Your task to perform on an android device: turn on improve location accuracy Image 0: 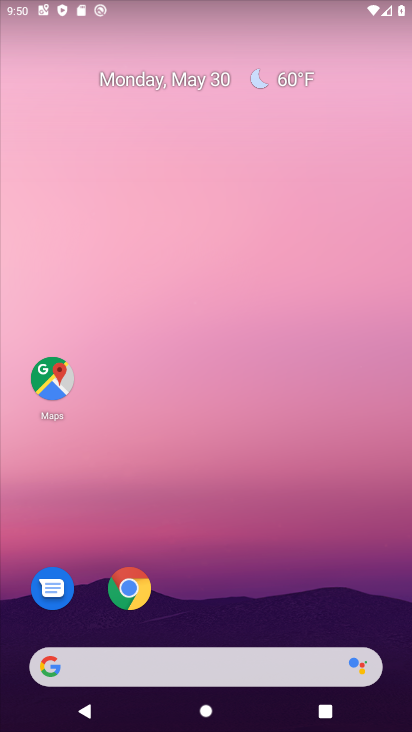
Step 0: drag from (198, 604) to (254, 239)
Your task to perform on an android device: turn on improve location accuracy Image 1: 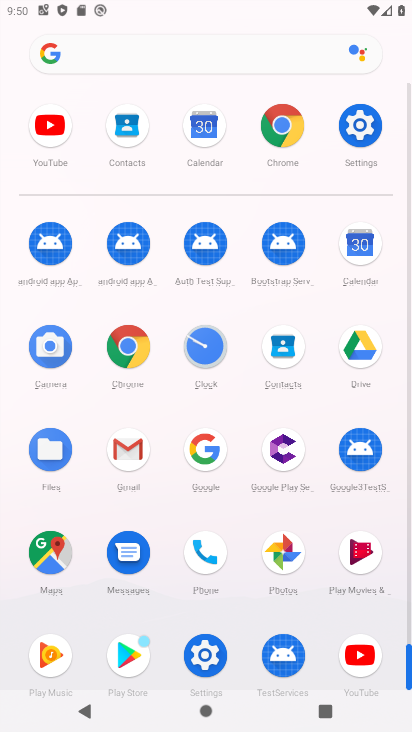
Step 1: click (360, 142)
Your task to perform on an android device: turn on improve location accuracy Image 2: 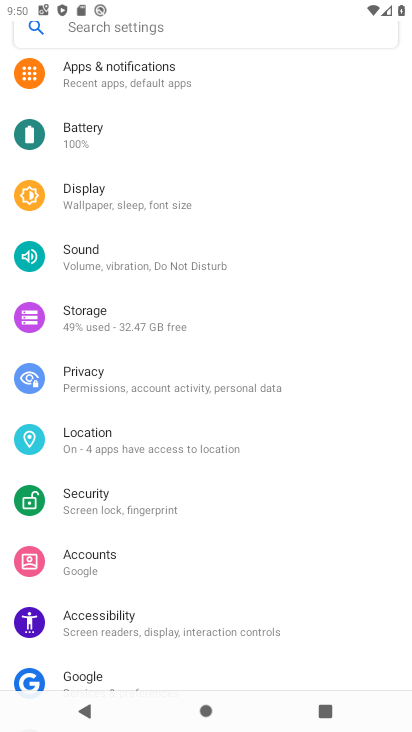
Step 2: click (138, 456)
Your task to perform on an android device: turn on improve location accuracy Image 3: 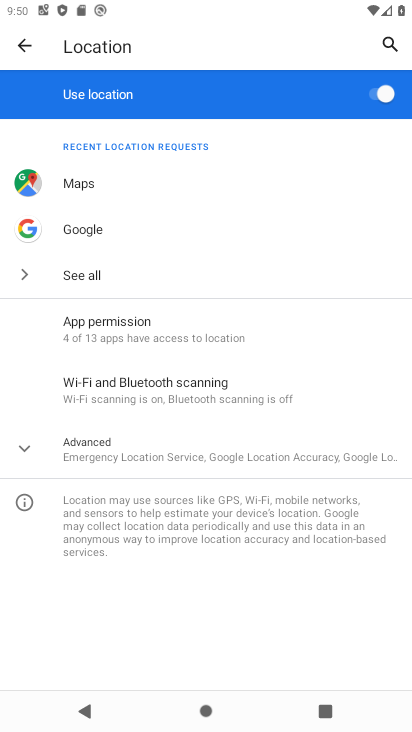
Step 3: click (164, 456)
Your task to perform on an android device: turn on improve location accuracy Image 4: 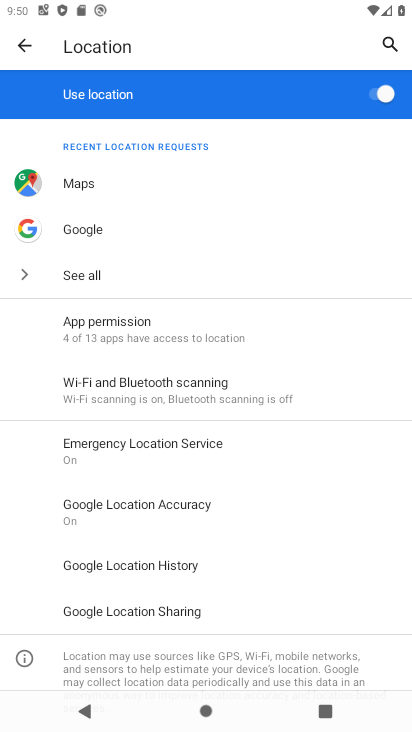
Step 4: click (177, 511)
Your task to perform on an android device: turn on improve location accuracy Image 5: 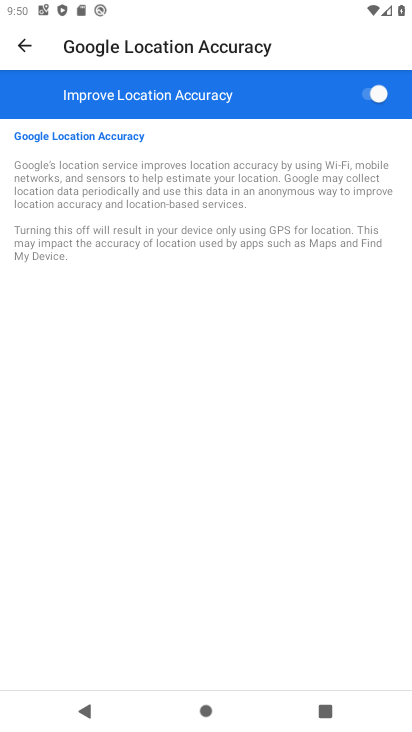
Step 5: task complete